Your task to perform on an android device: open app "Microsoft Outlook" (install if not already installed) Image 0: 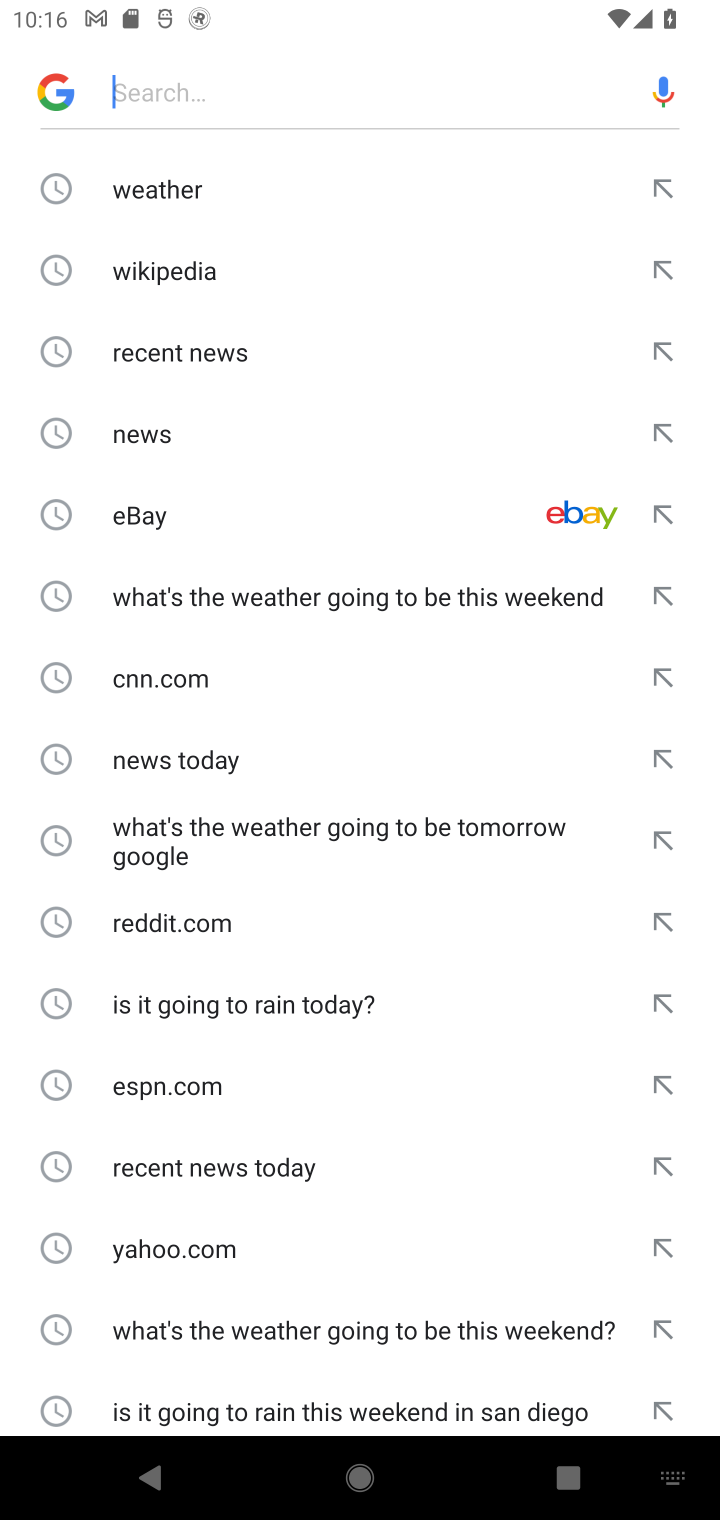
Step 0: press home button
Your task to perform on an android device: open app "Microsoft Outlook" (install if not already installed) Image 1: 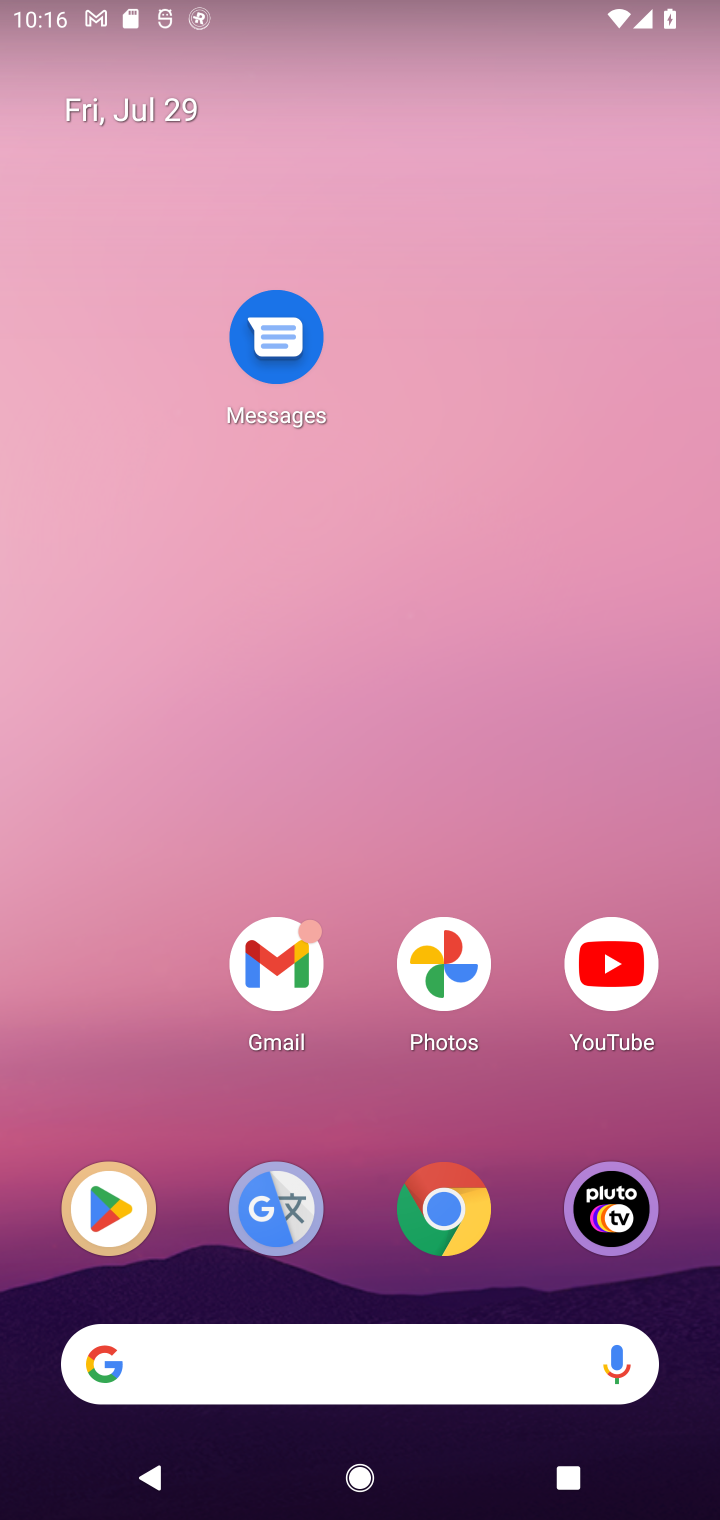
Step 1: drag from (326, 1359) to (403, 196)
Your task to perform on an android device: open app "Microsoft Outlook" (install if not already installed) Image 2: 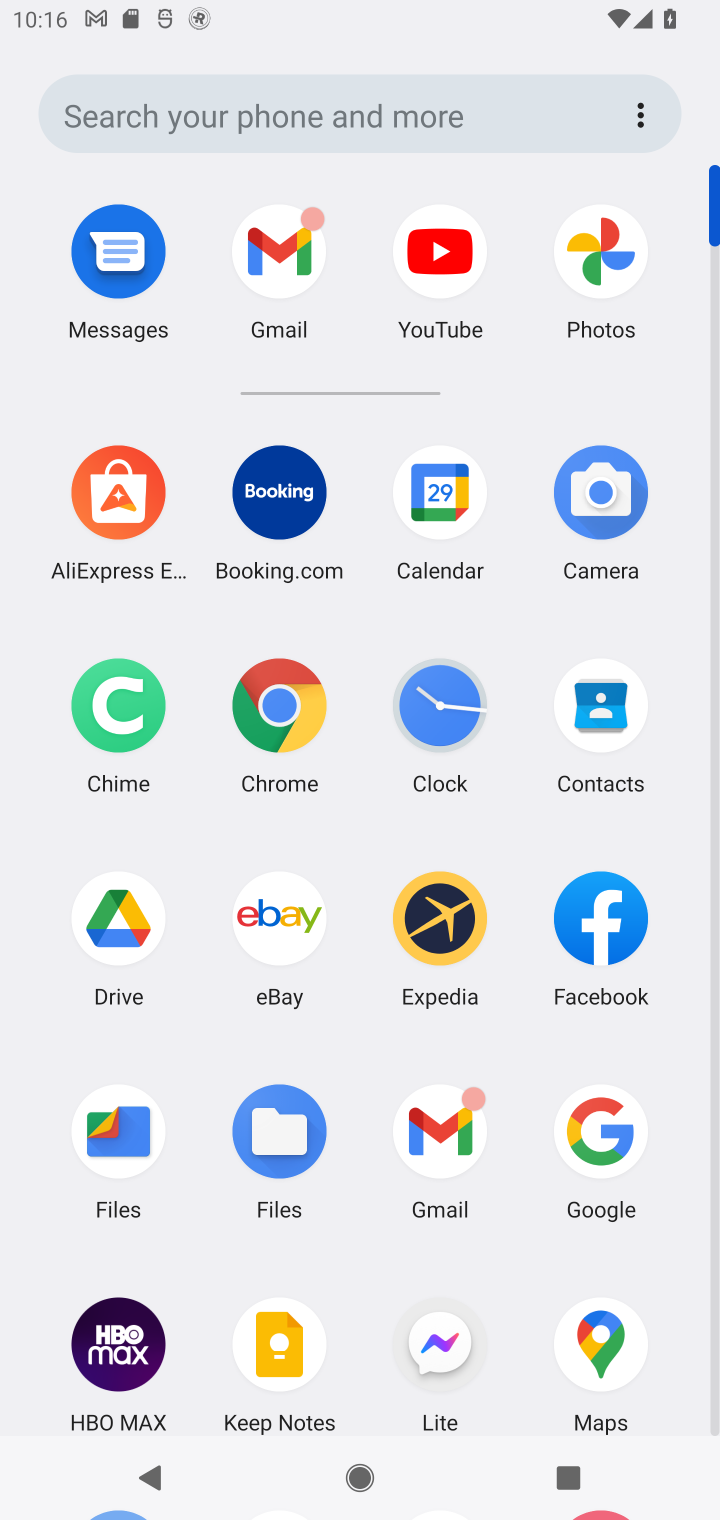
Step 2: drag from (365, 1272) to (350, 529)
Your task to perform on an android device: open app "Microsoft Outlook" (install if not already installed) Image 3: 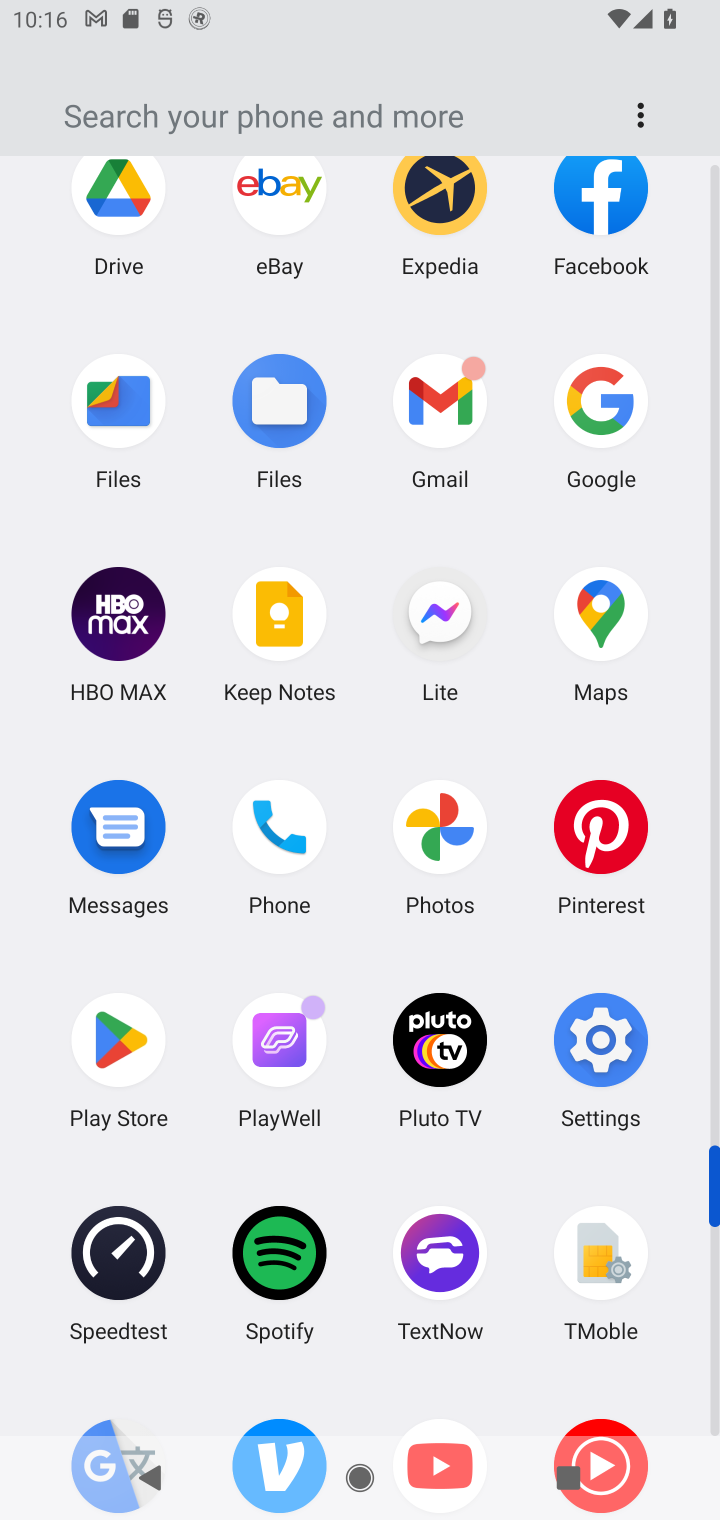
Step 3: click (123, 1046)
Your task to perform on an android device: open app "Microsoft Outlook" (install if not already installed) Image 4: 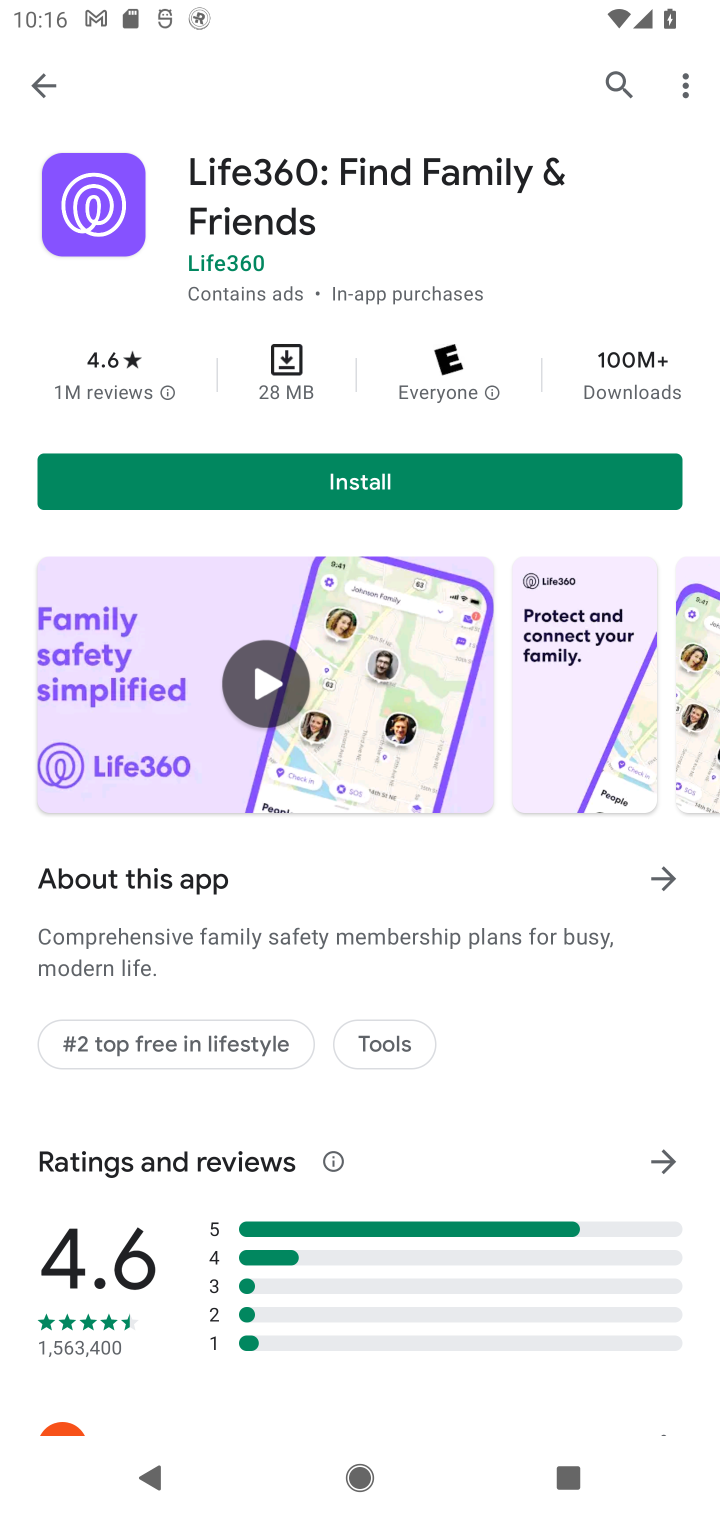
Step 4: click (608, 84)
Your task to perform on an android device: open app "Microsoft Outlook" (install if not already installed) Image 5: 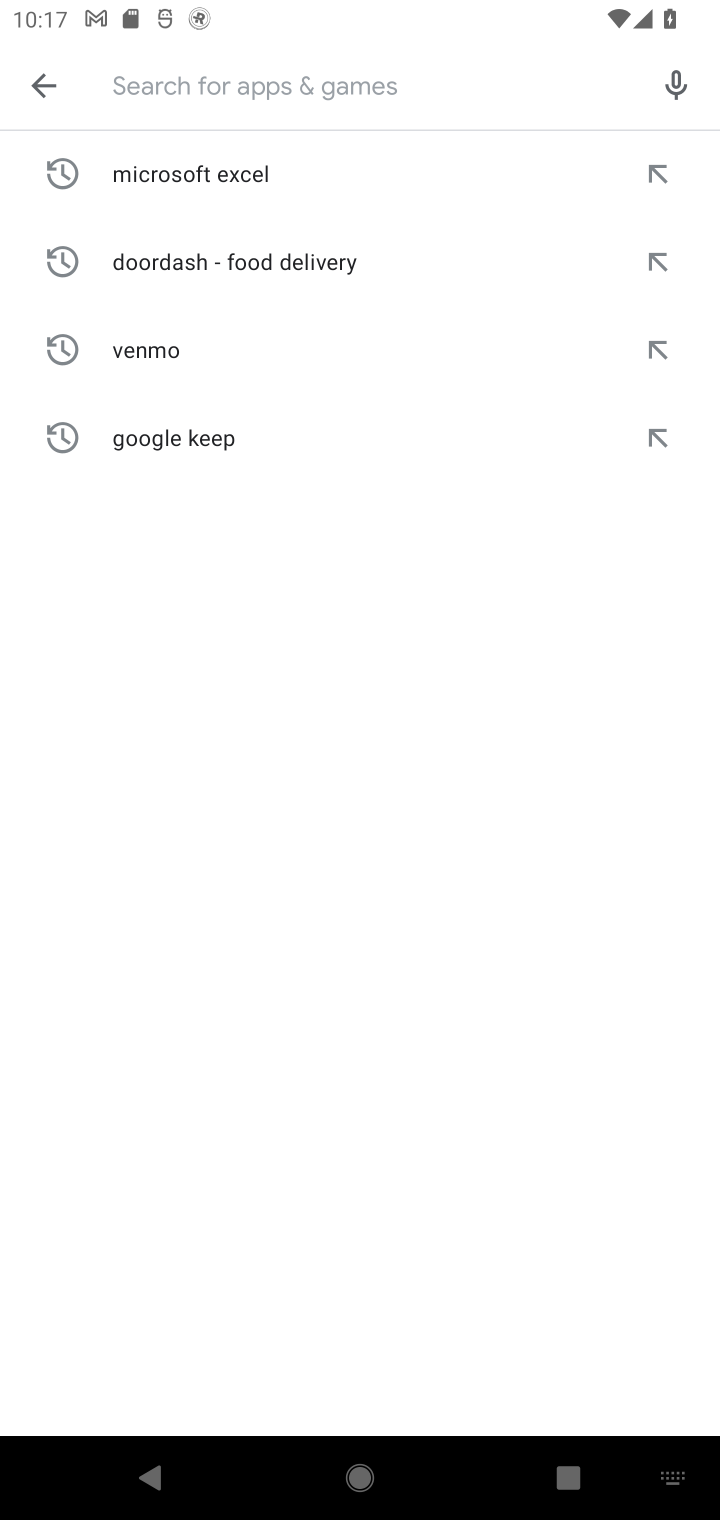
Step 5: type "Microsoft Outlook"
Your task to perform on an android device: open app "Microsoft Outlook" (install if not already installed) Image 6: 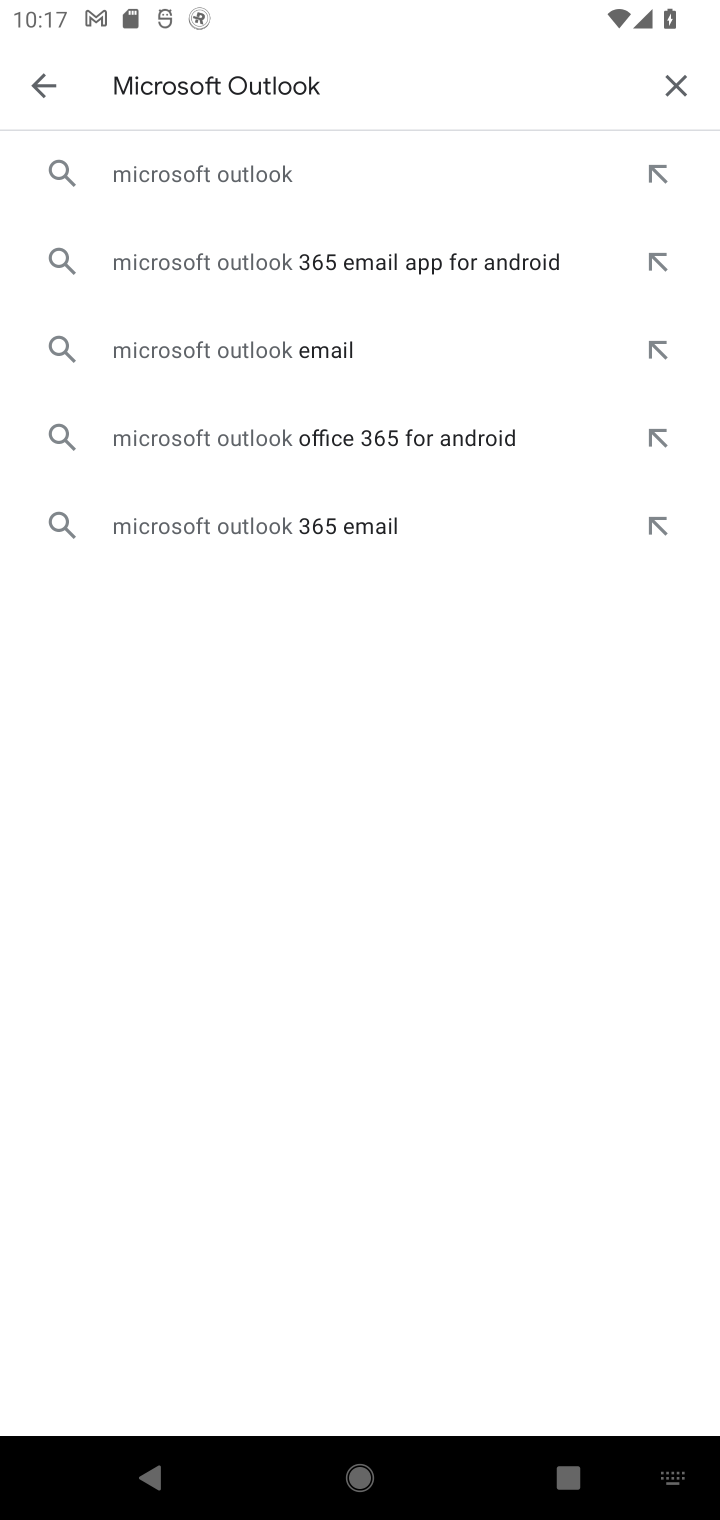
Step 6: click (245, 186)
Your task to perform on an android device: open app "Microsoft Outlook" (install if not already installed) Image 7: 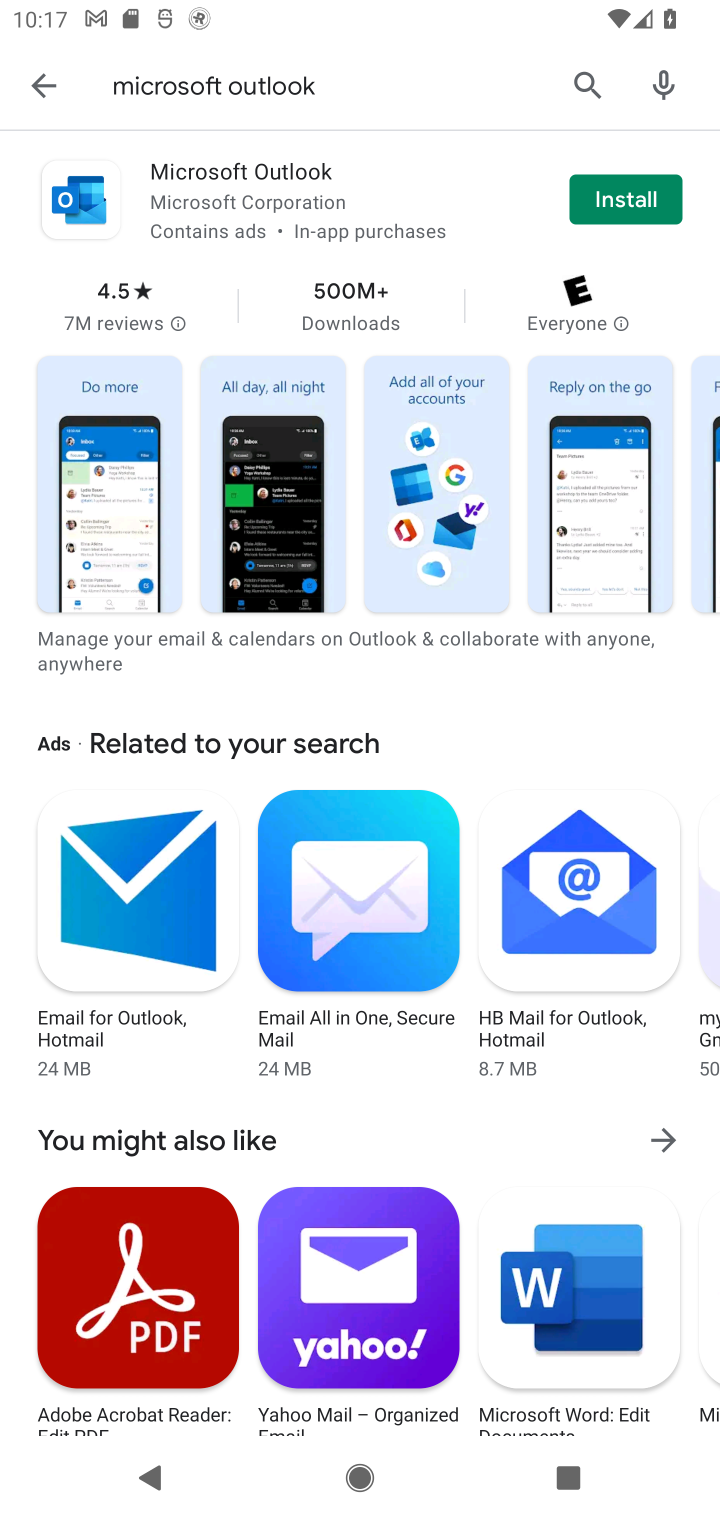
Step 7: click (634, 205)
Your task to perform on an android device: open app "Microsoft Outlook" (install if not already installed) Image 8: 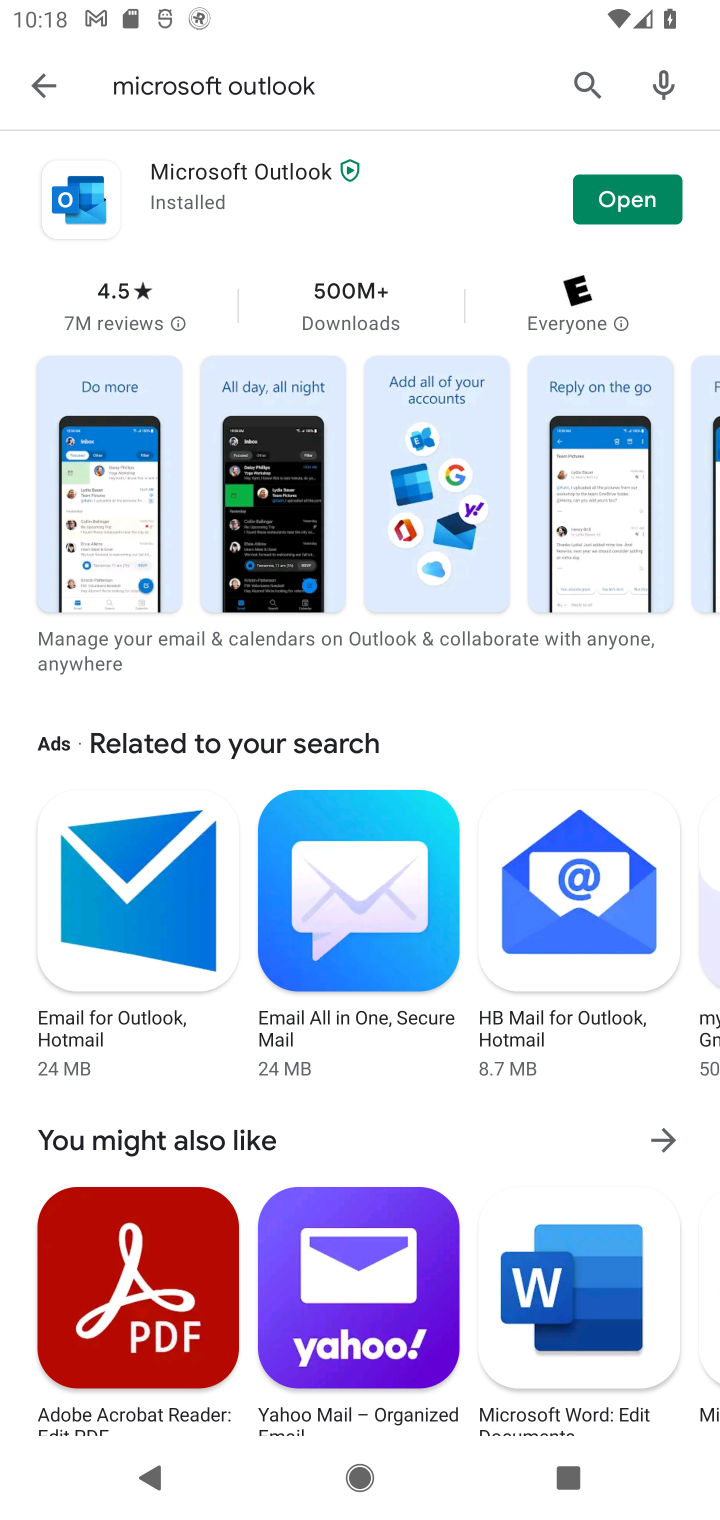
Step 8: click (643, 207)
Your task to perform on an android device: open app "Microsoft Outlook" (install if not already installed) Image 9: 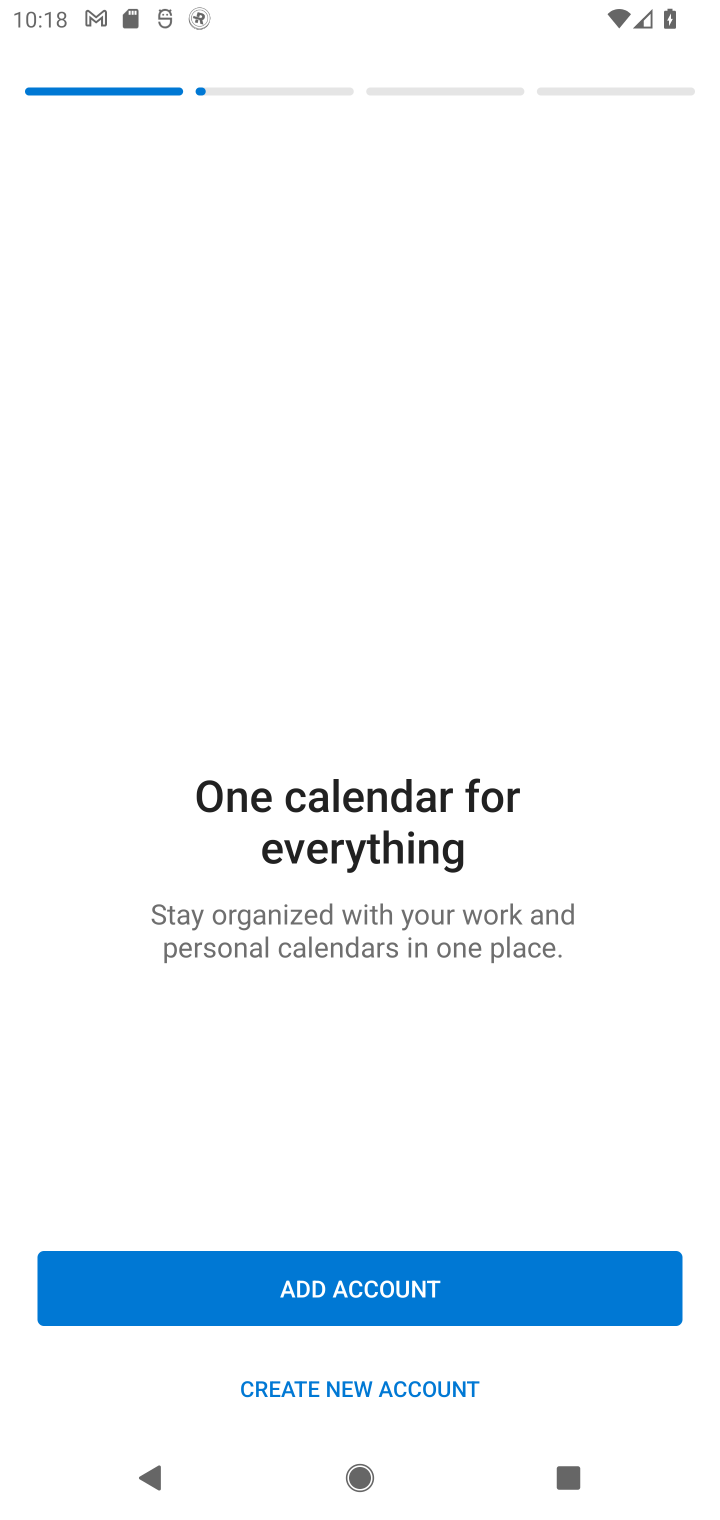
Step 9: task complete